Your task to perform on an android device: turn on bluetooth scan Image 0: 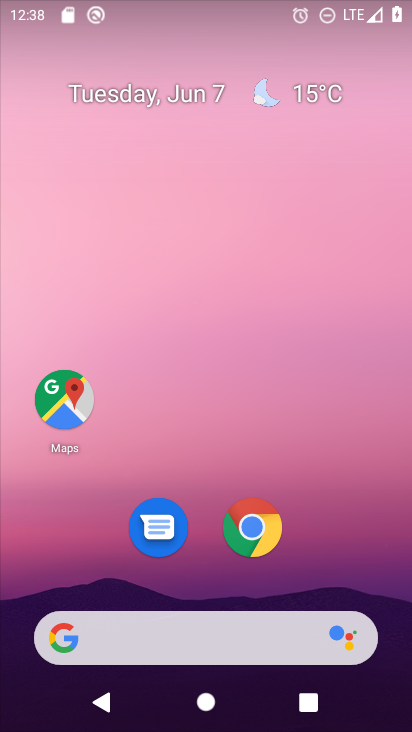
Step 0: drag from (350, 576) to (371, 174)
Your task to perform on an android device: turn on bluetooth scan Image 1: 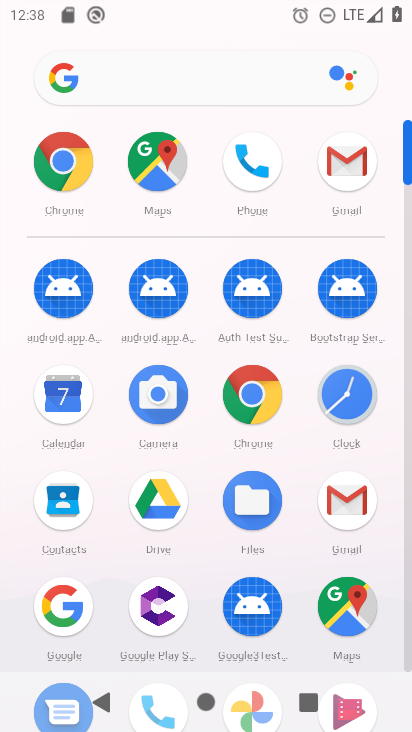
Step 1: drag from (299, 534) to (300, 265)
Your task to perform on an android device: turn on bluetooth scan Image 2: 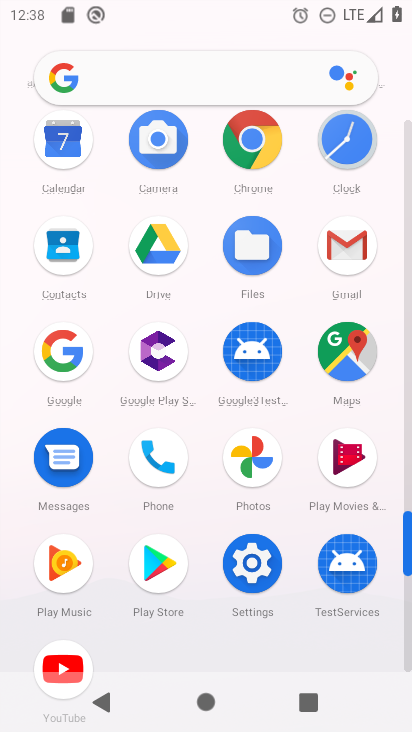
Step 2: drag from (293, 512) to (309, 279)
Your task to perform on an android device: turn on bluetooth scan Image 3: 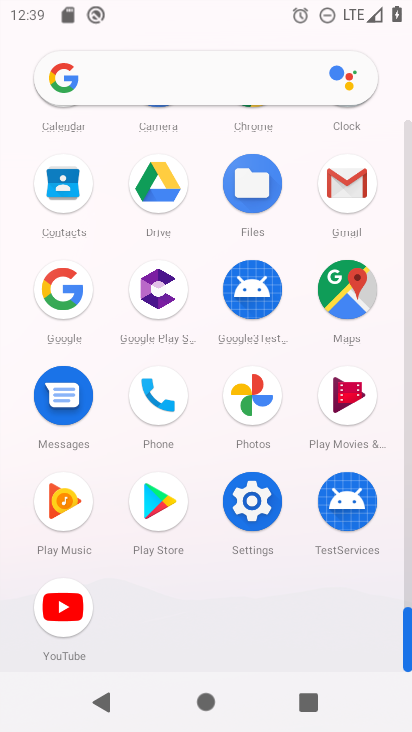
Step 3: click (244, 521)
Your task to perform on an android device: turn on bluetooth scan Image 4: 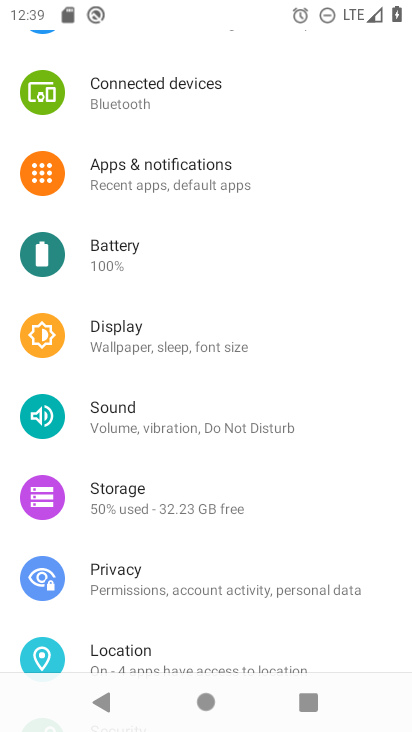
Step 4: drag from (341, 230) to (344, 356)
Your task to perform on an android device: turn on bluetooth scan Image 5: 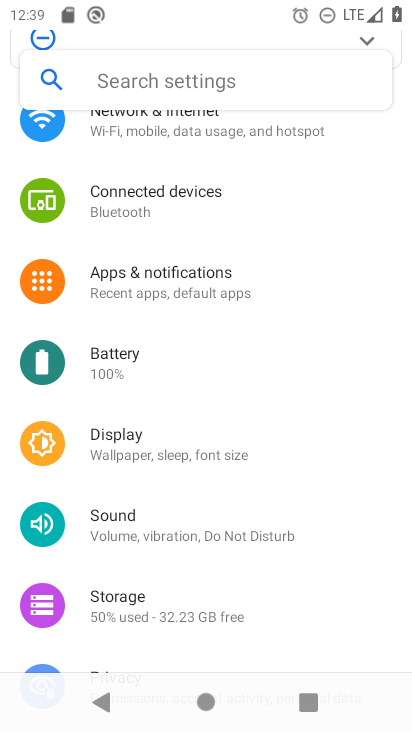
Step 5: drag from (337, 205) to (336, 411)
Your task to perform on an android device: turn on bluetooth scan Image 6: 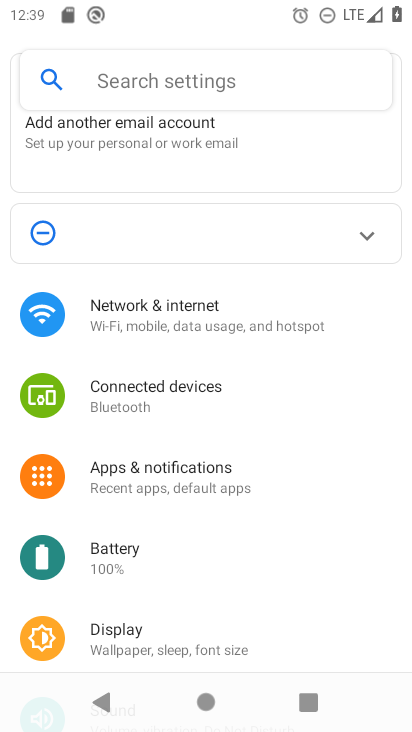
Step 6: drag from (337, 432) to (345, 298)
Your task to perform on an android device: turn on bluetooth scan Image 7: 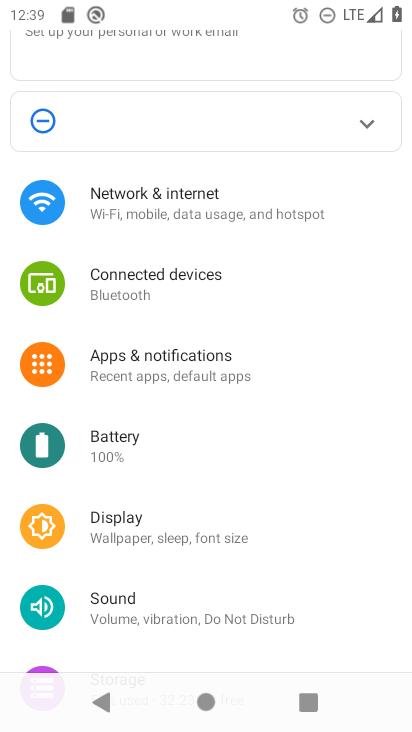
Step 7: drag from (344, 447) to (352, 294)
Your task to perform on an android device: turn on bluetooth scan Image 8: 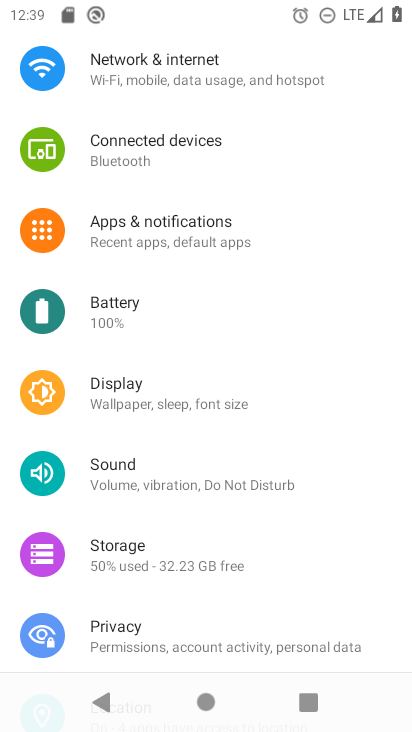
Step 8: drag from (355, 474) to (357, 307)
Your task to perform on an android device: turn on bluetooth scan Image 9: 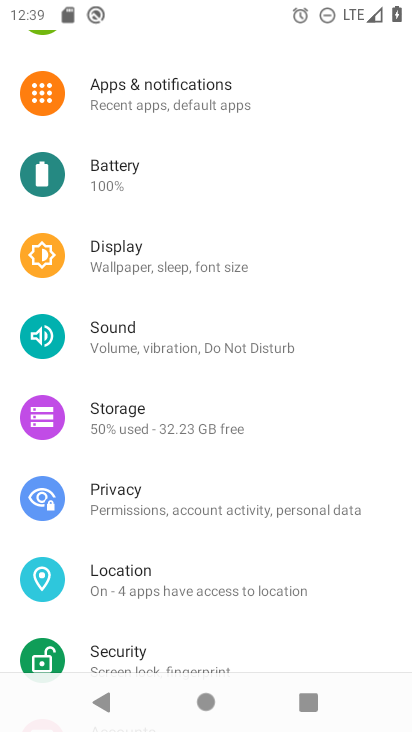
Step 9: drag from (354, 461) to (354, 317)
Your task to perform on an android device: turn on bluetooth scan Image 10: 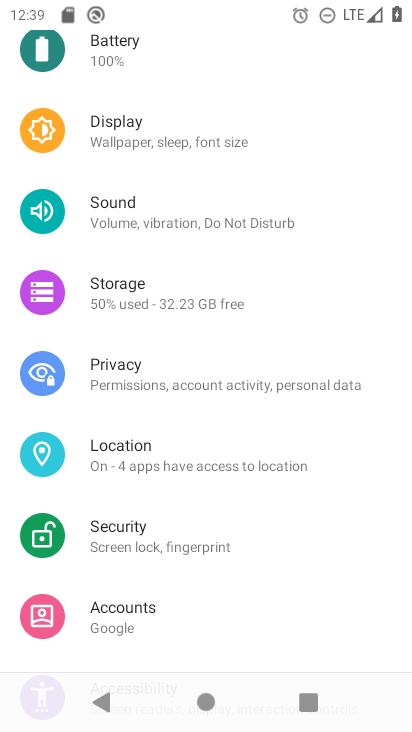
Step 10: drag from (352, 526) to (363, 340)
Your task to perform on an android device: turn on bluetooth scan Image 11: 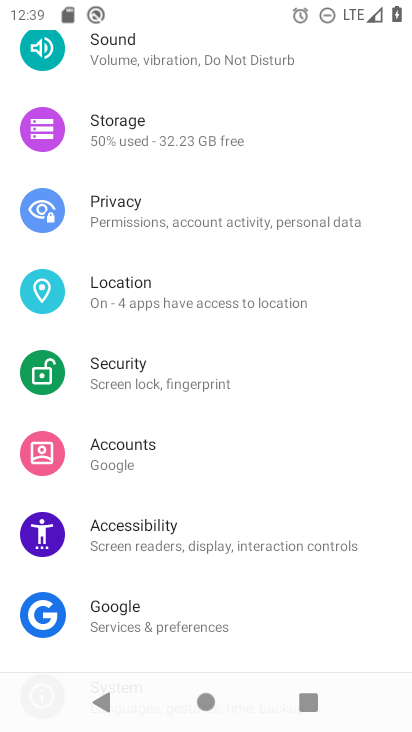
Step 11: click (286, 304)
Your task to perform on an android device: turn on bluetooth scan Image 12: 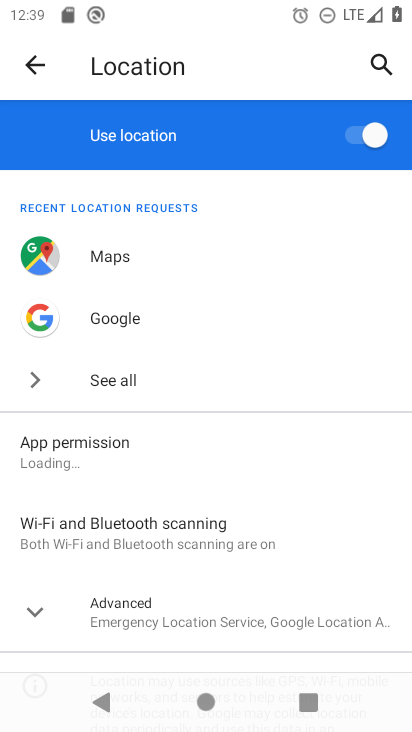
Step 12: click (215, 546)
Your task to perform on an android device: turn on bluetooth scan Image 13: 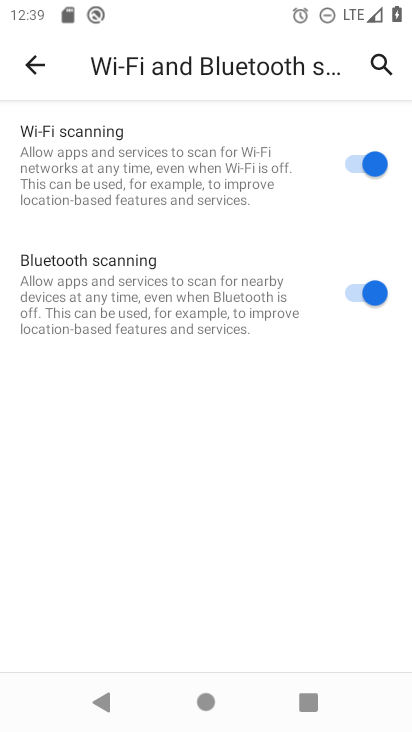
Step 13: task complete